Your task to perform on an android device: move a message to another label in the gmail app Image 0: 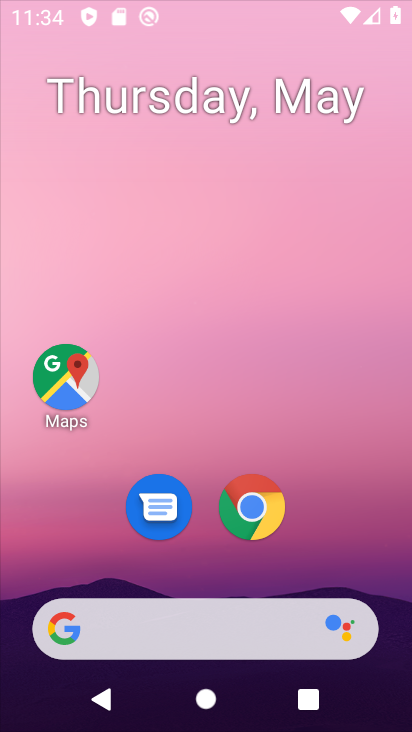
Step 0: drag from (318, 506) to (366, 147)
Your task to perform on an android device: move a message to another label in the gmail app Image 1: 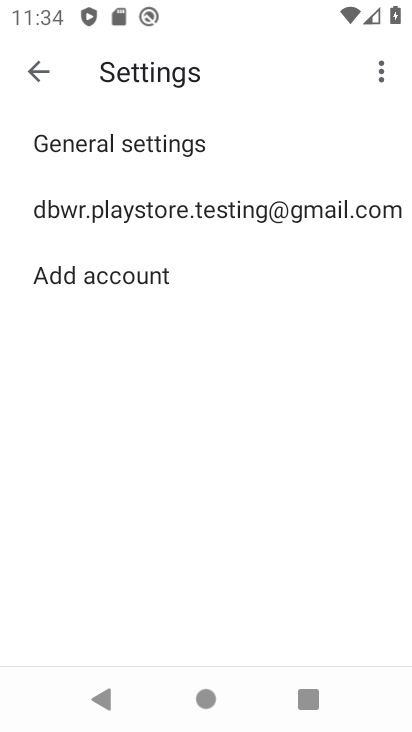
Step 1: press home button
Your task to perform on an android device: move a message to another label in the gmail app Image 2: 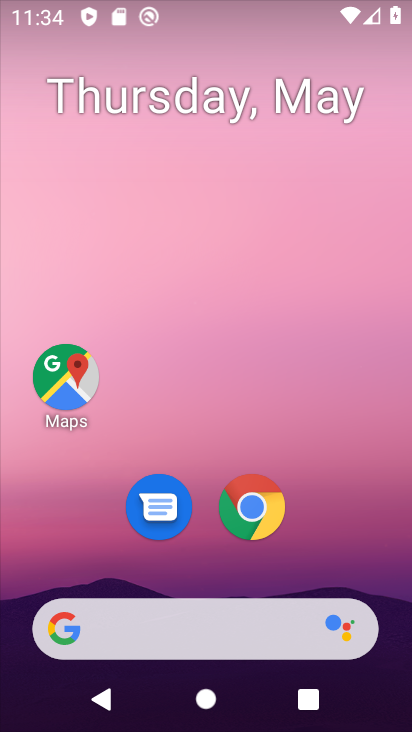
Step 2: drag from (237, 500) to (274, 162)
Your task to perform on an android device: move a message to another label in the gmail app Image 3: 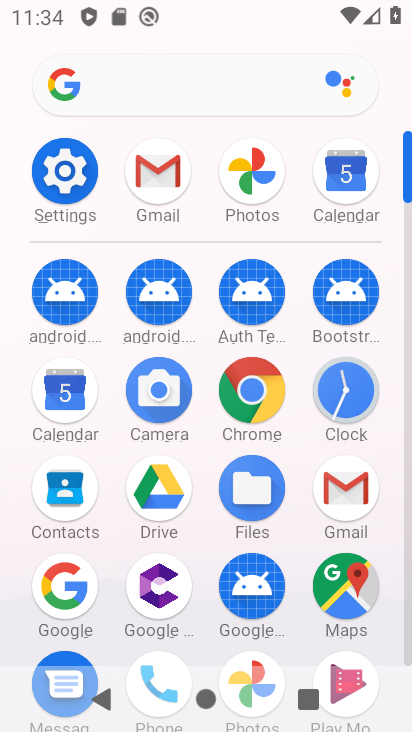
Step 3: click (344, 507)
Your task to perform on an android device: move a message to another label in the gmail app Image 4: 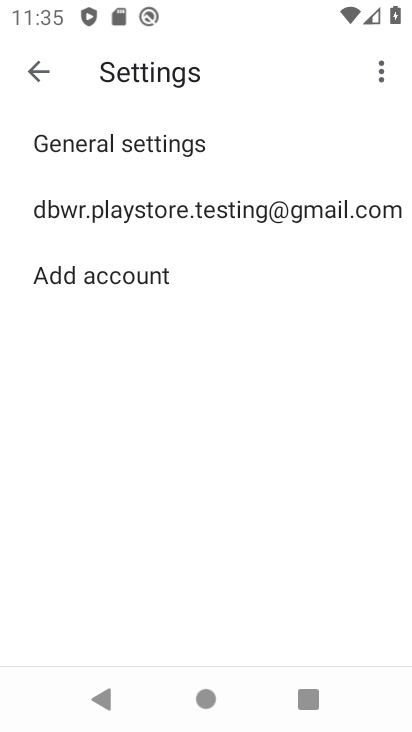
Step 4: click (222, 700)
Your task to perform on an android device: move a message to another label in the gmail app Image 5: 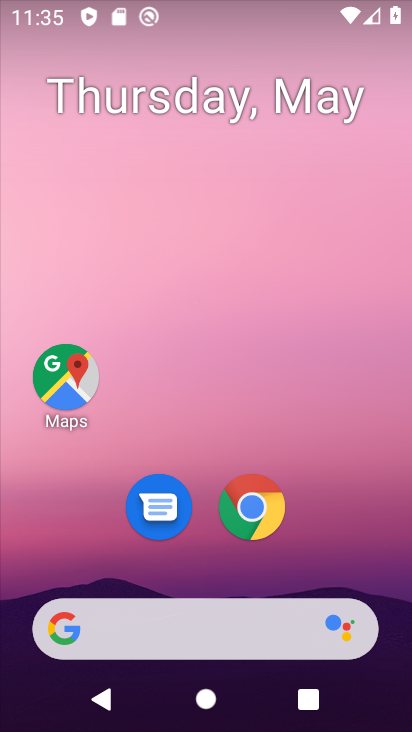
Step 5: drag from (266, 588) to (269, 139)
Your task to perform on an android device: move a message to another label in the gmail app Image 6: 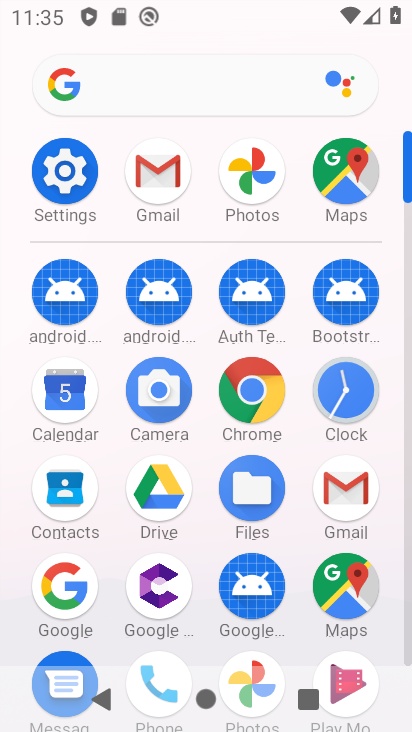
Step 6: click (340, 483)
Your task to perform on an android device: move a message to another label in the gmail app Image 7: 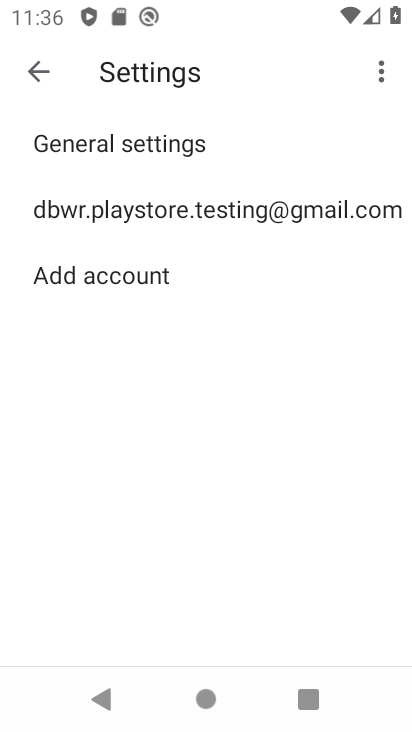
Step 7: click (44, 74)
Your task to perform on an android device: move a message to another label in the gmail app Image 8: 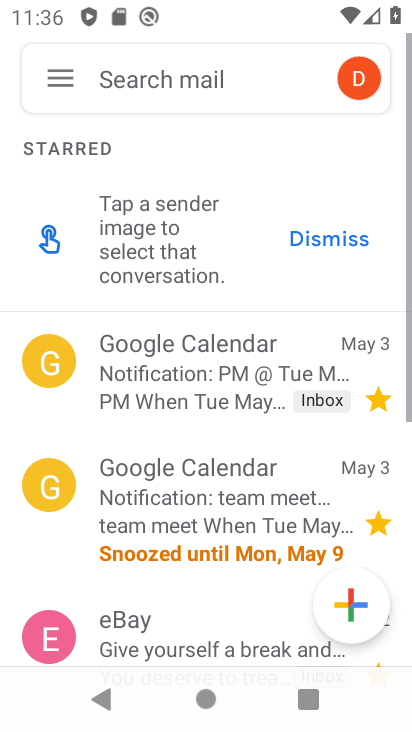
Step 8: click (69, 85)
Your task to perform on an android device: move a message to another label in the gmail app Image 9: 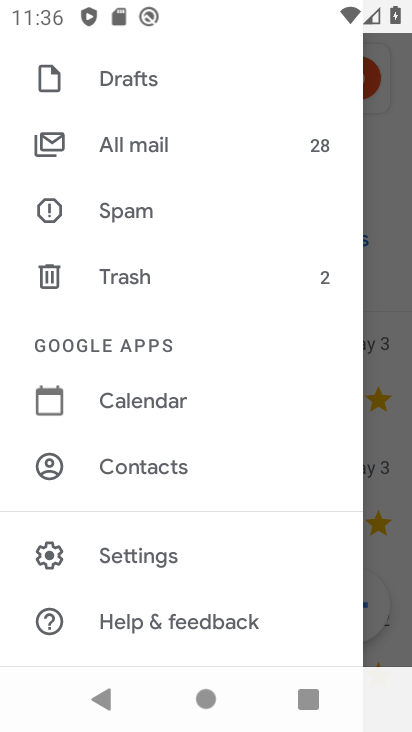
Step 9: click (185, 153)
Your task to perform on an android device: move a message to another label in the gmail app Image 10: 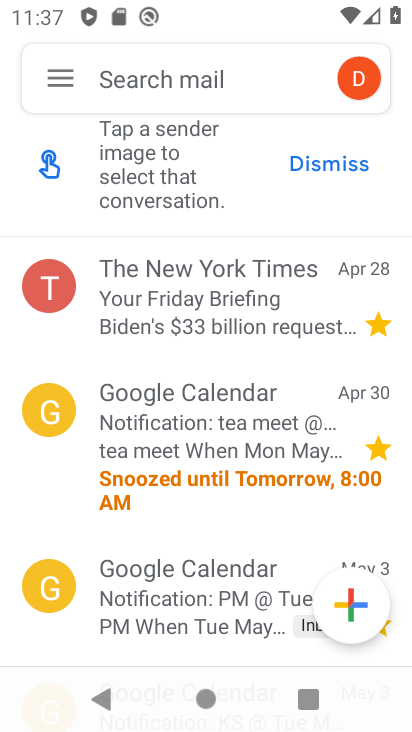
Step 10: click (188, 348)
Your task to perform on an android device: move a message to another label in the gmail app Image 11: 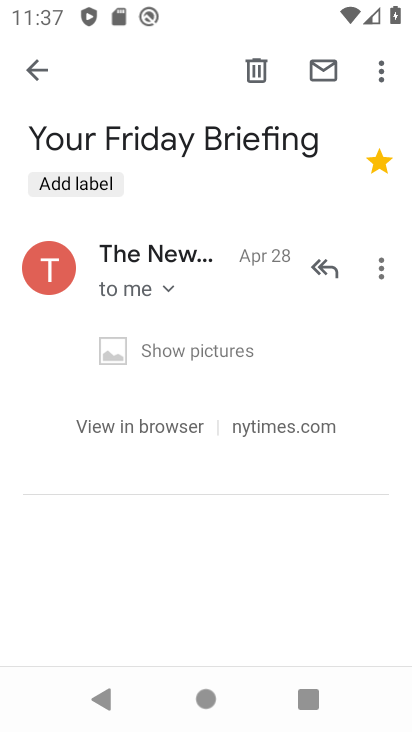
Step 11: click (381, 82)
Your task to perform on an android device: move a message to another label in the gmail app Image 12: 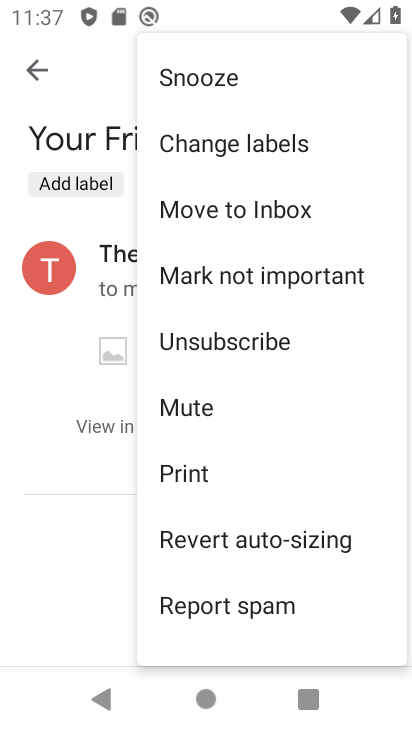
Step 12: click (265, 152)
Your task to perform on an android device: move a message to another label in the gmail app Image 13: 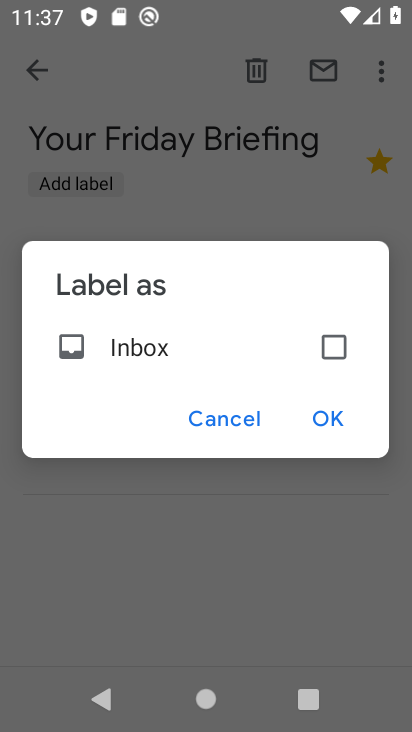
Step 13: click (329, 369)
Your task to perform on an android device: move a message to another label in the gmail app Image 14: 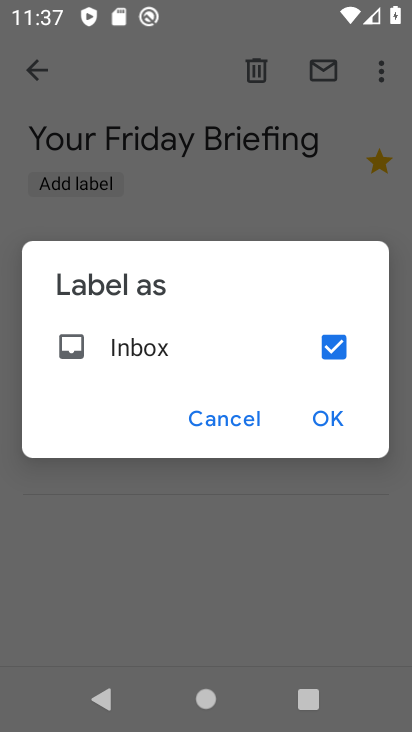
Step 14: click (335, 424)
Your task to perform on an android device: move a message to another label in the gmail app Image 15: 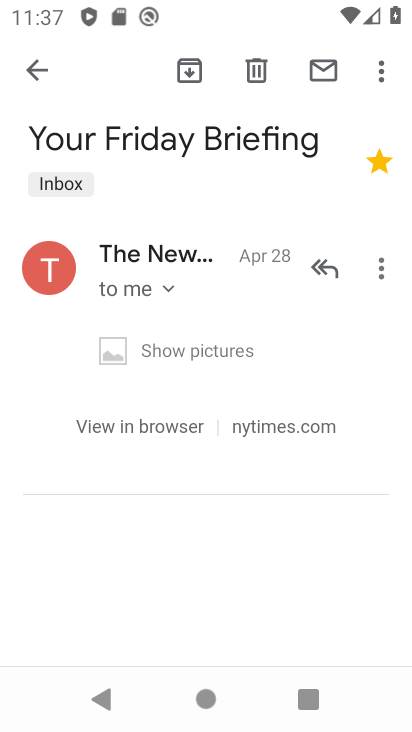
Step 15: task complete